Your task to perform on an android device: Open CNN.com Image 0: 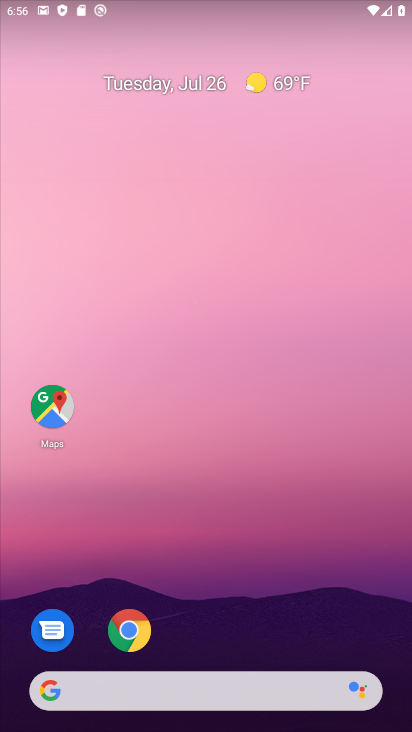
Step 0: drag from (241, 614) to (218, 104)
Your task to perform on an android device: Open CNN.com Image 1: 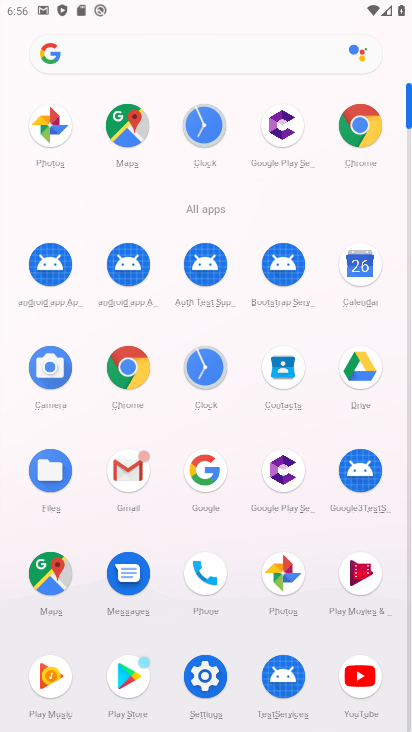
Step 1: click (374, 132)
Your task to perform on an android device: Open CNN.com Image 2: 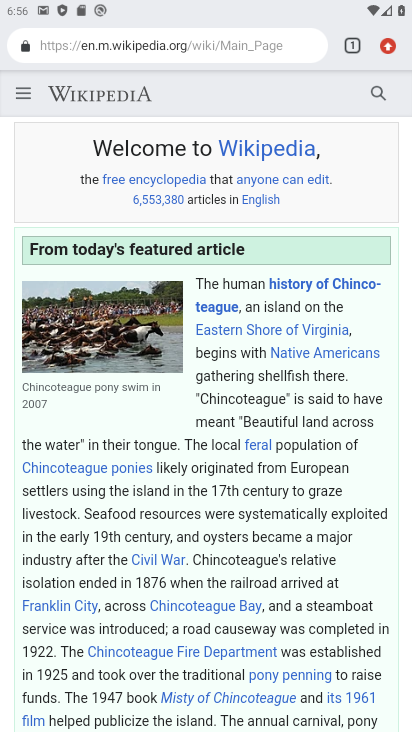
Step 2: click (354, 51)
Your task to perform on an android device: Open CNN.com Image 3: 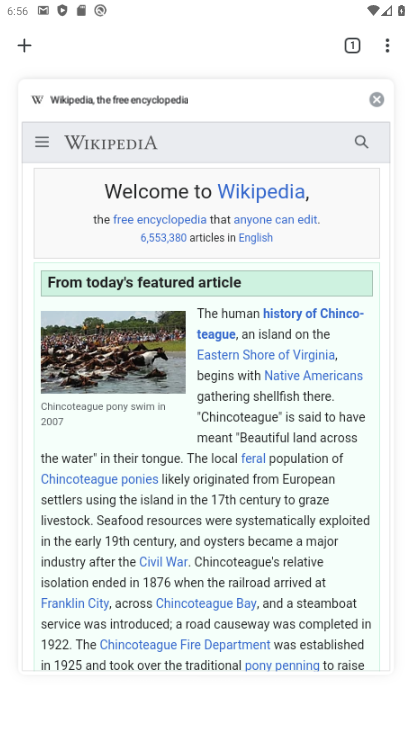
Step 3: click (26, 53)
Your task to perform on an android device: Open CNN.com Image 4: 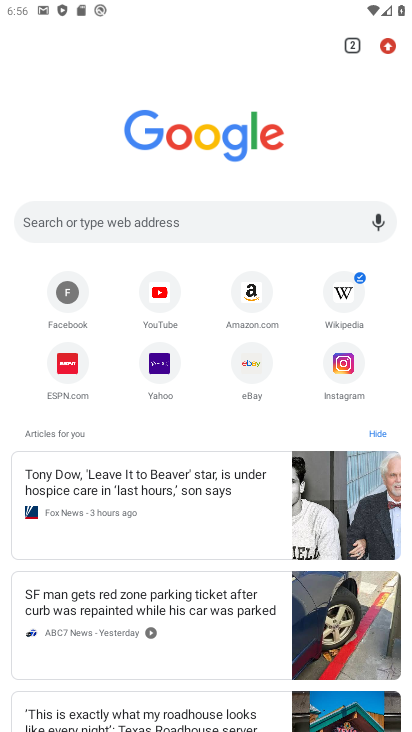
Step 4: click (264, 229)
Your task to perform on an android device: Open CNN.com Image 5: 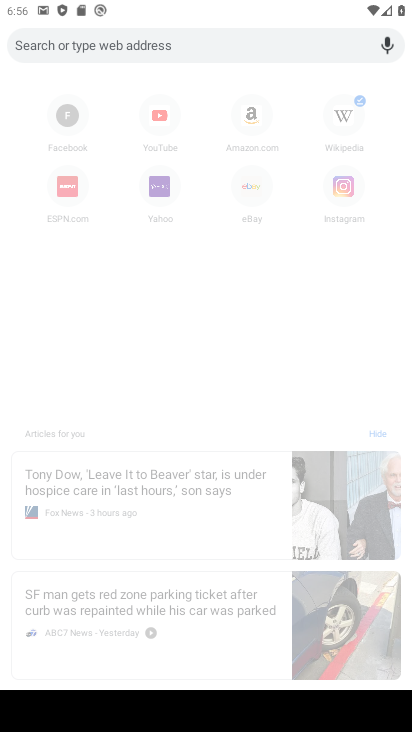
Step 5: type "CNN.com"
Your task to perform on an android device: Open CNN.com Image 6: 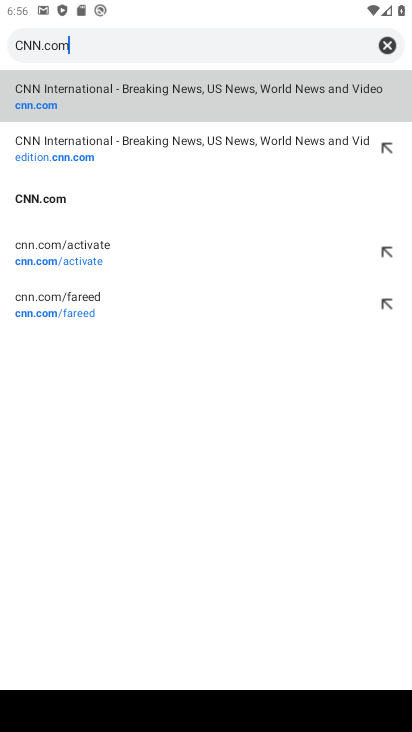
Step 6: type ""
Your task to perform on an android device: Open CNN.com Image 7: 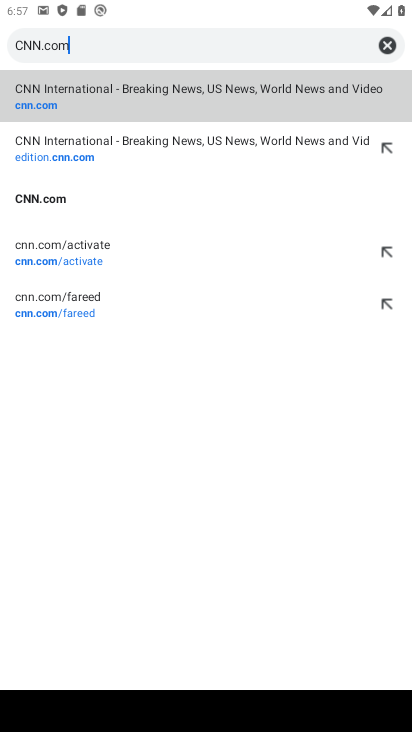
Step 7: click (40, 104)
Your task to perform on an android device: Open CNN.com Image 8: 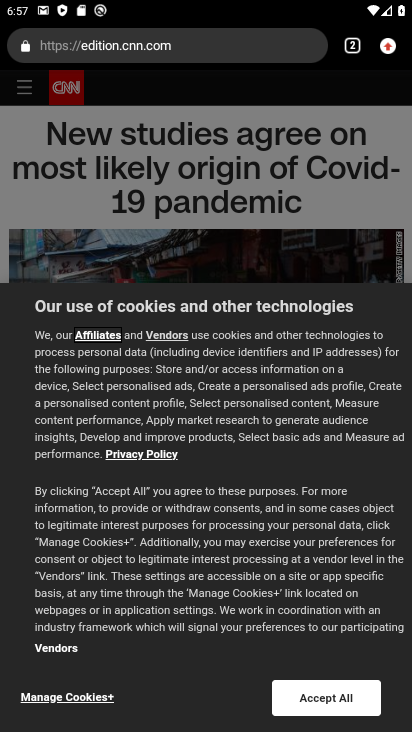
Step 8: click (299, 693)
Your task to perform on an android device: Open CNN.com Image 9: 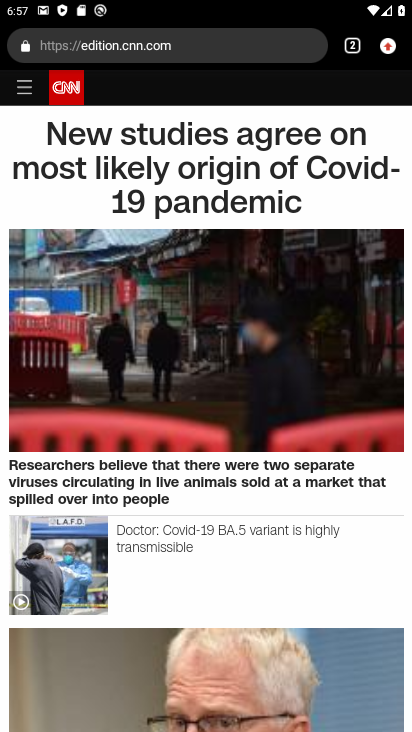
Step 9: task complete